Your task to perform on an android device: Open CNN.com Image 0: 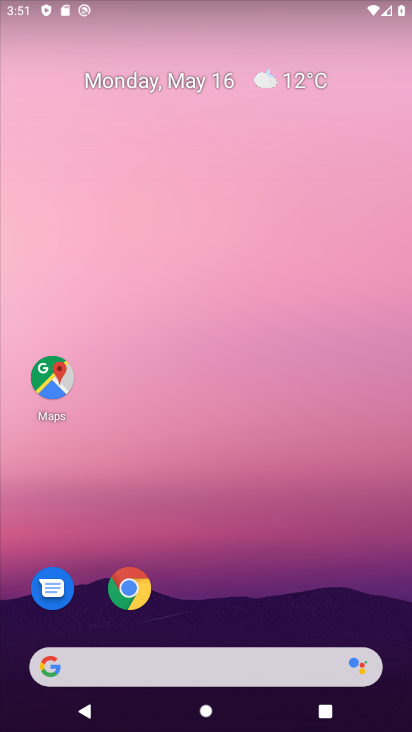
Step 0: click (135, 601)
Your task to perform on an android device: Open CNN.com Image 1: 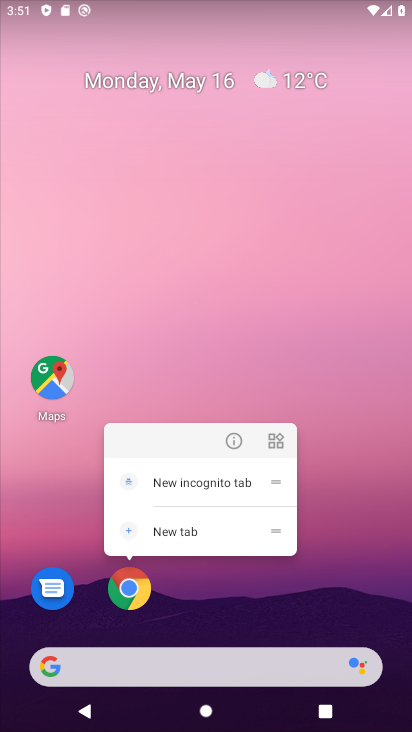
Step 1: click (131, 593)
Your task to perform on an android device: Open CNN.com Image 2: 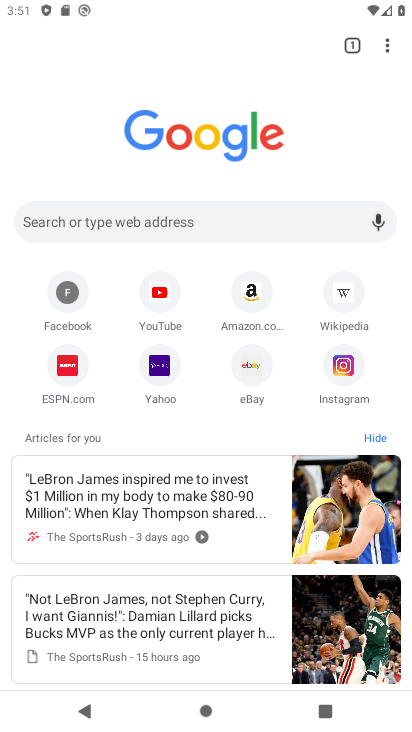
Step 2: click (179, 212)
Your task to perform on an android device: Open CNN.com Image 3: 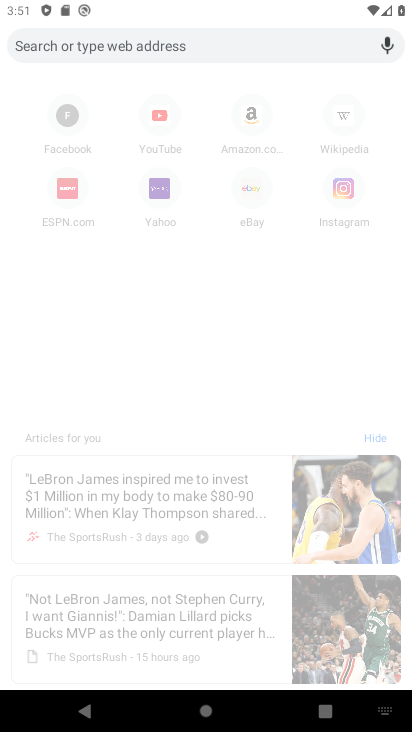
Step 3: type "CNN.com"
Your task to perform on an android device: Open CNN.com Image 4: 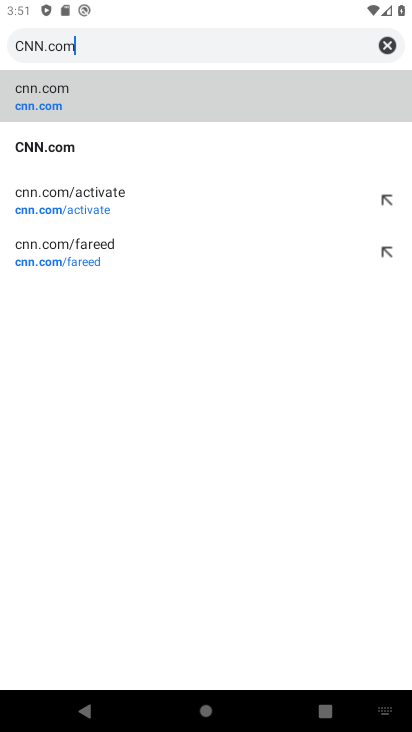
Step 4: click (165, 103)
Your task to perform on an android device: Open CNN.com Image 5: 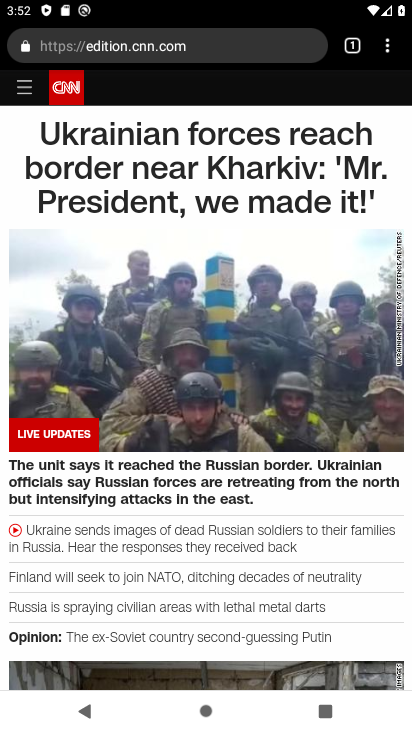
Step 5: task complete